Your task to perform on an android device: Open sound settings Image 0: 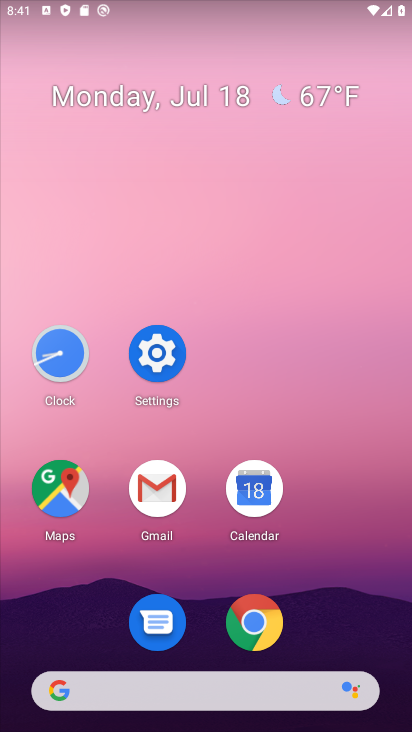
Step 0: click (146, 349)
Your task to perform on an android device: Open sound settings Image 1: 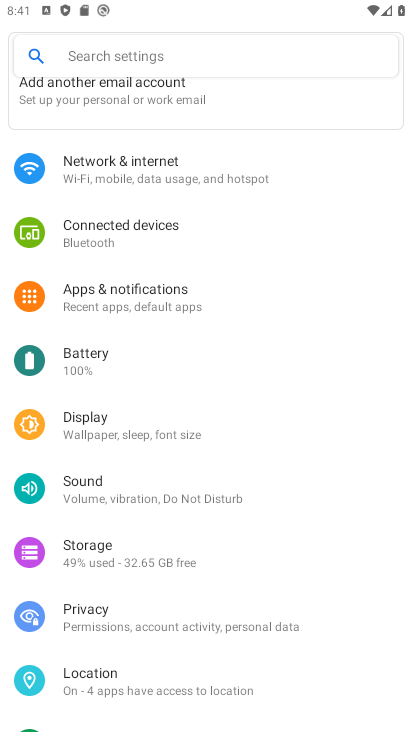
Step 1: click (83, 484)
Your task to perform on an android device: Open sound settings Image 2: 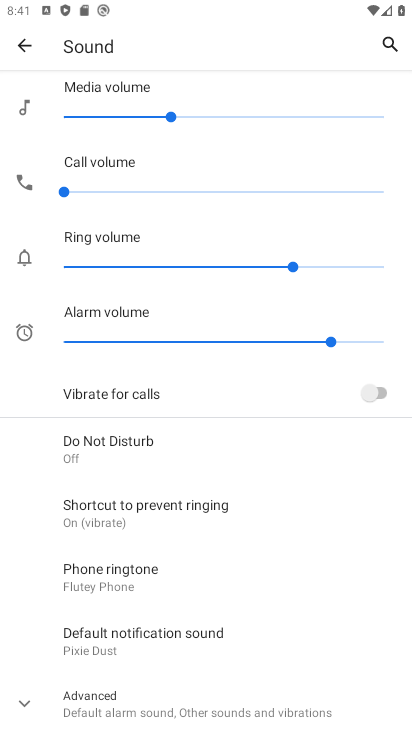
Step 2: task complete